Your task to perform on an android device: open chrome privacy settings Image 0: 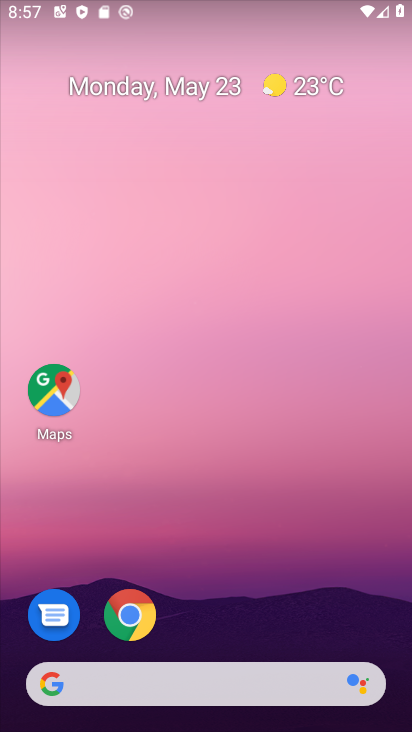
Step 0: click (130, 616)
Your task to perform on an android device: open chrome privacy settings Image 1: 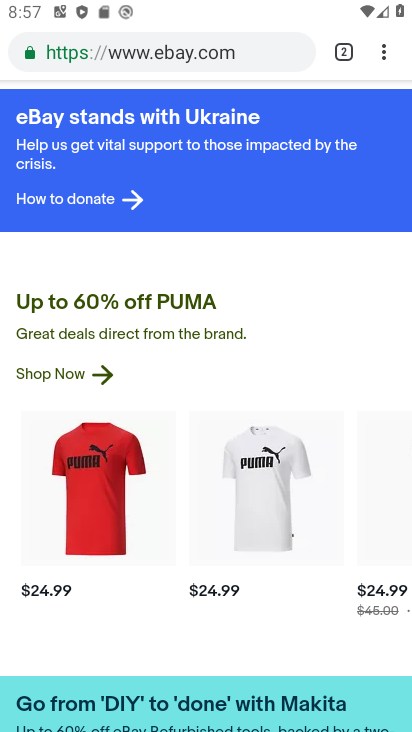
Step 1: click (384, 52)
Your task to perform on an android device: open chrome privacy settings Image 2: 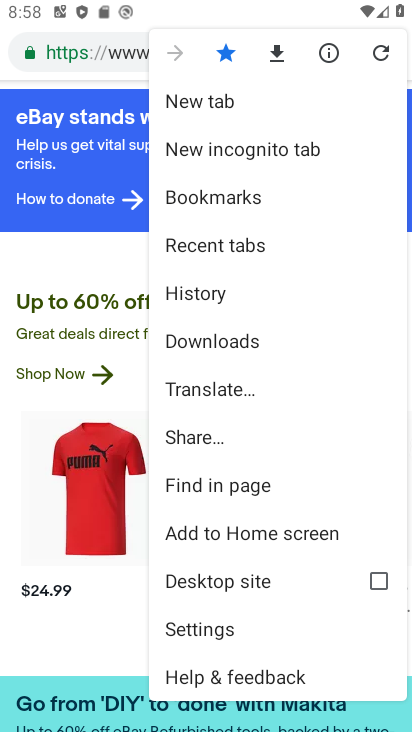
Step 2: click (221, 633)
Your task to perform on an android device: open chrome privacy settings Image 3: 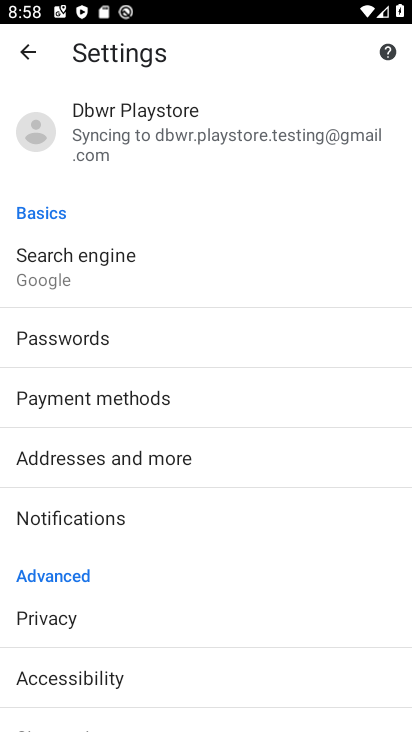
Step 3: click (68, 625)
Your task to perform on an android device: open chrome privacy settings Image 4: 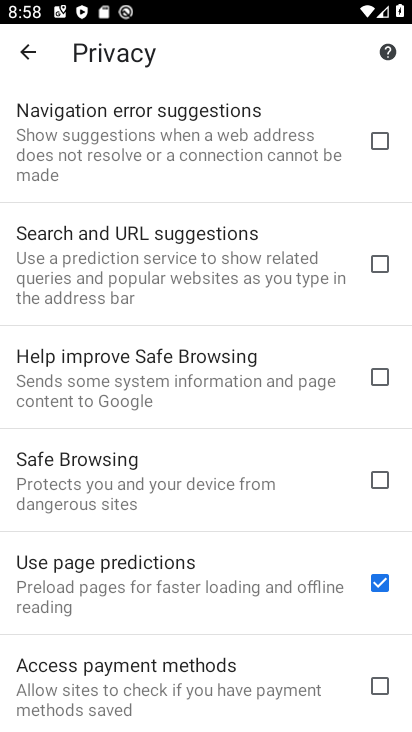
Step 4: task complete